Your task to perform on an android device: Search for pizza restaurants on Maps Image 0: 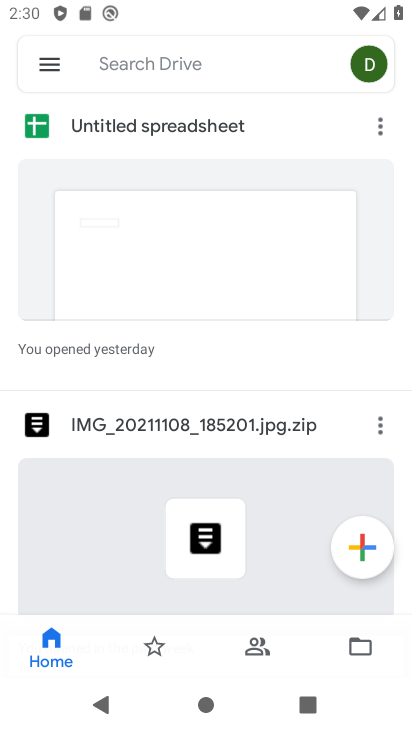
Step 0: press home button
Your task to perform on an android device: Search for pizza restaurants on Maps Image 1: 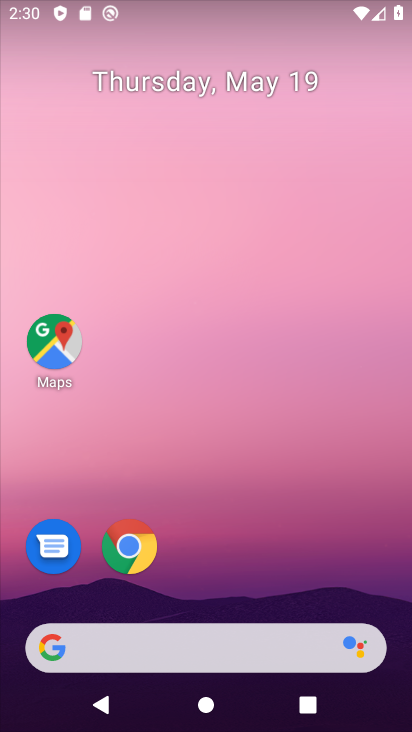
Step 1: click (51, 345)
Your task to perform on an android device: Search for pizza restaurants on Maps Image 2: 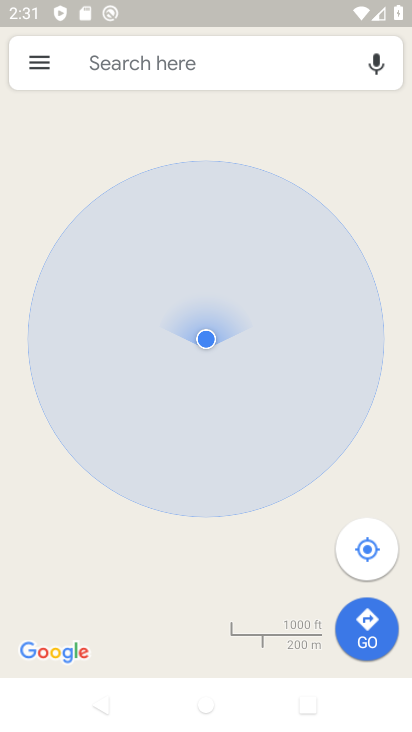
Step 2: click (155, 68)
Your task to perform on an android device: Search for pizza restaurants on Maps Image 3: 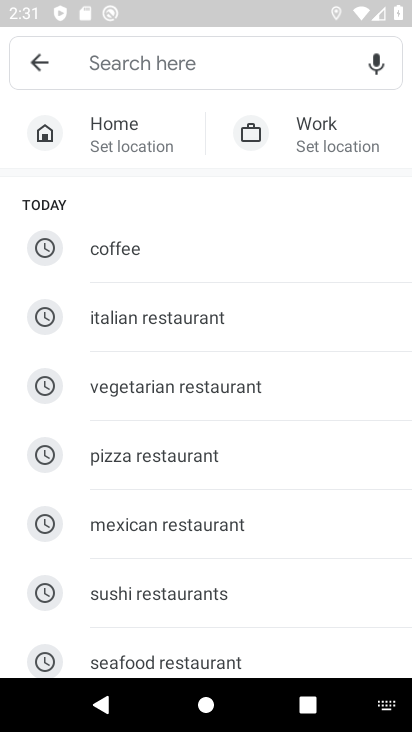
Step 3: type "pizza restaurants"
Your task to perform on an android device: Search for pizza restaurants on Maps Image 4: 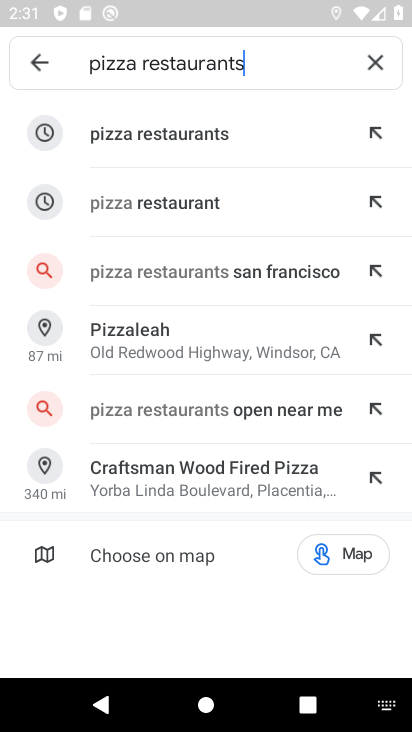
Step 4: click (170, 130)
Your task to perform on an android device: Search for pizza restaurants on Maps Image 5: 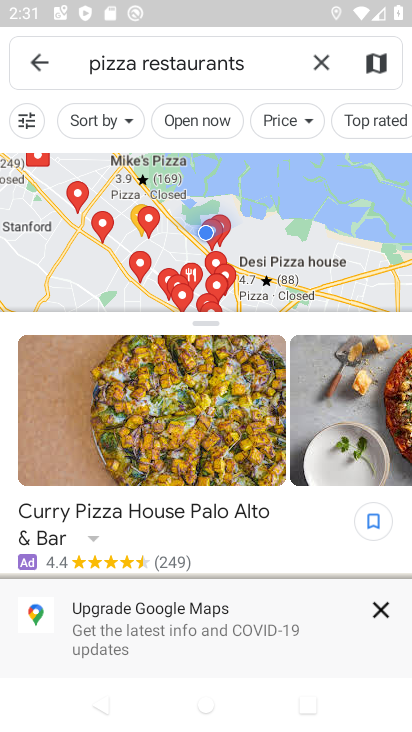
Step 5: click (381, 610)
Your task to perform on an android device: Search for pizza restaurants on Maps Image 6: 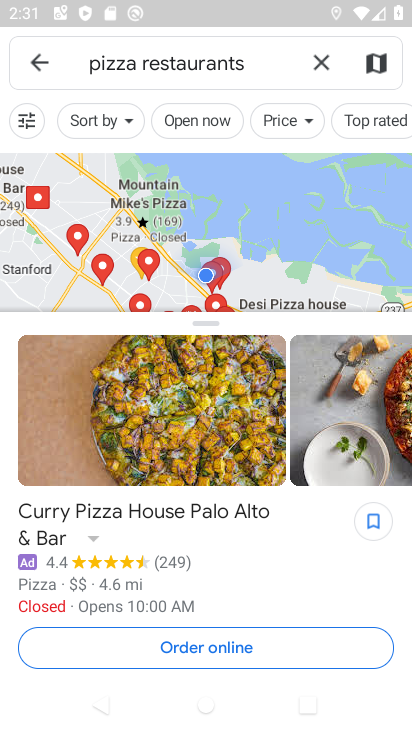
Step 6: task complete